Your task to perform on an android device: Open calendar and show me the first week of next month Image 0: 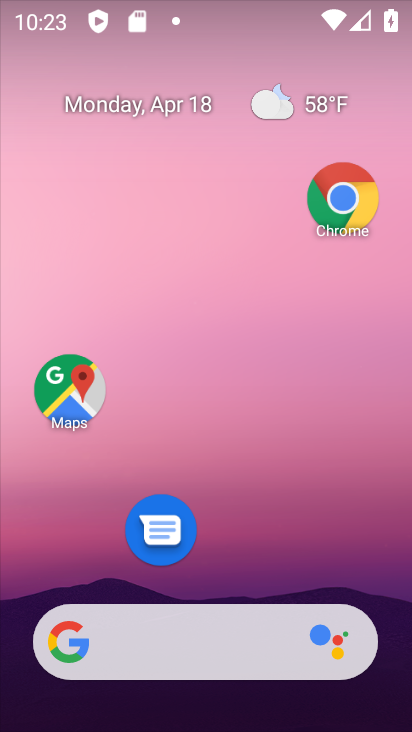
Step 0: drag from (224, 593) to (227, 148)
Your task to perform on an android device: Open calendar and show me the first week of next month Image 1: 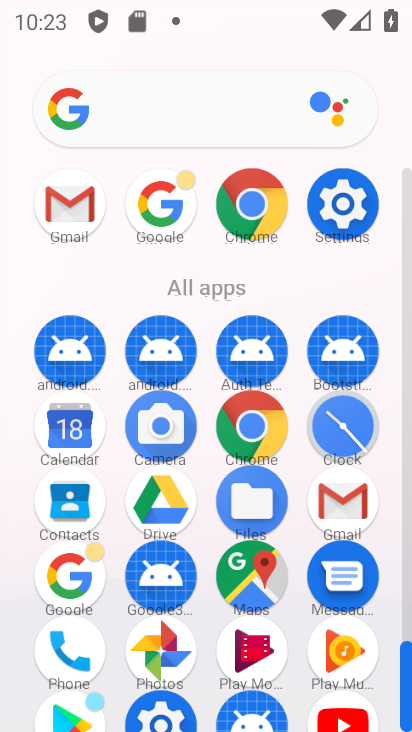
Step 1: click (71, 422)
Your task to perform on an android device: Open calendar and show me the first week of next month Image 2: 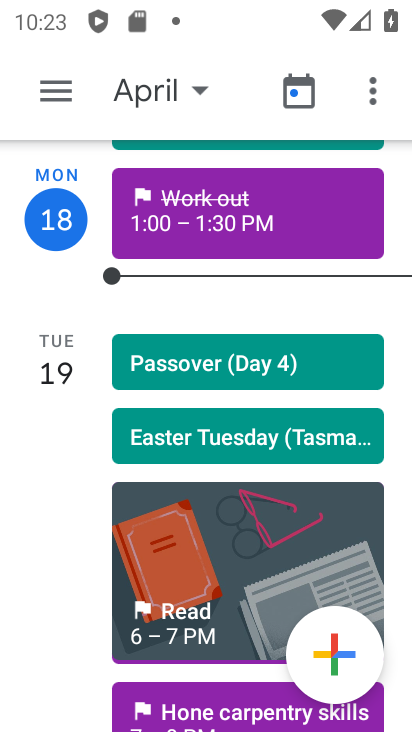
Step 2: click (159, 85)
Your task to perform on an android device: Open calendar and show me the first week of next month Image 3: 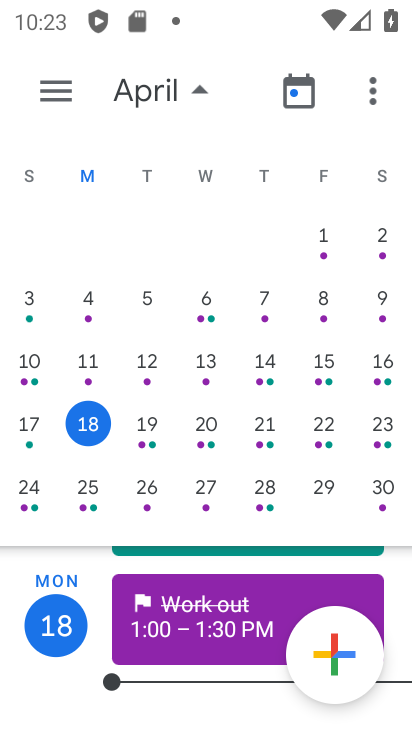
Step 3: drag from (353, 378) to (27, 317)
Your task to perform on an android device: Open calendar and show me the first week of next month Image 4: 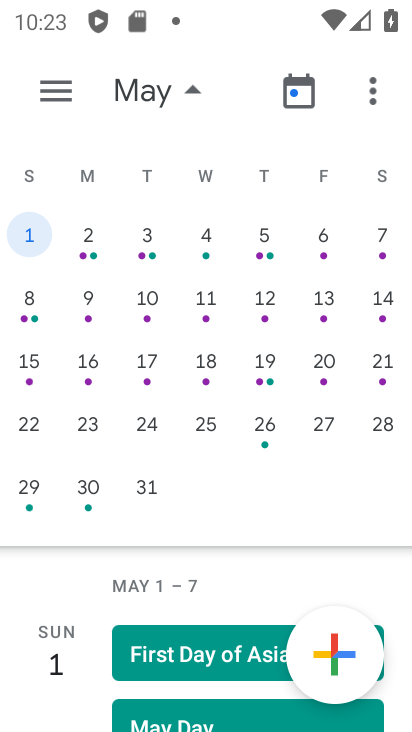
Step 4: click (206, 234)
Your task to perform on an android device: Open calendar and show me the first week of next month Image 5: 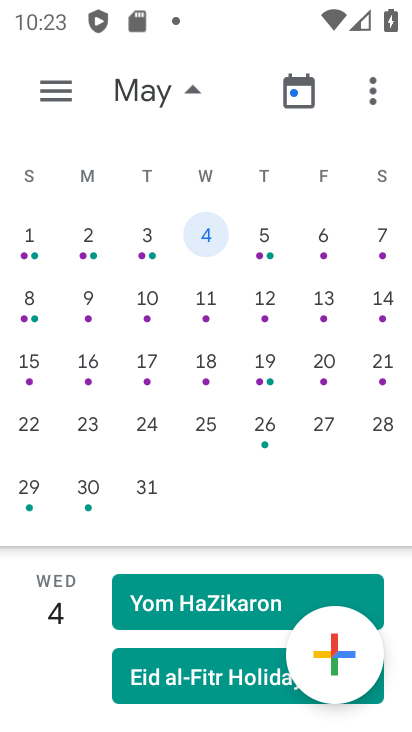
Step 5: click (58, 86)
Your task to perform on an android device: Open calendar and show me the first week of next month Image 6: 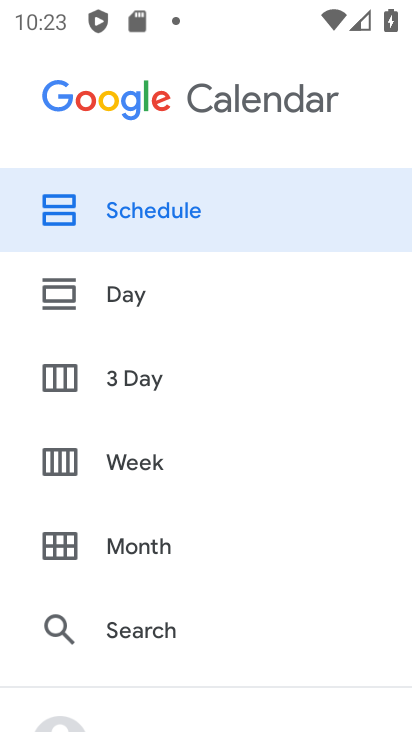
Step 6: click (146, 451)
Your task to perform on an android device: Open calendar and show me the first week of next month Image 7: 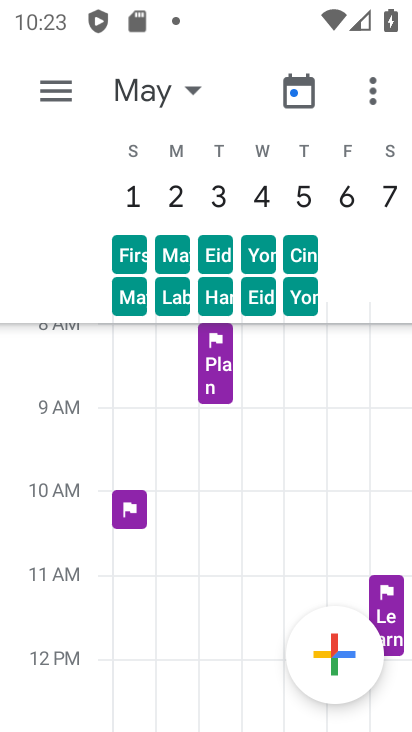
Step 7: task complete